Your task to perform on an android device: change text size in settings app Image 0: 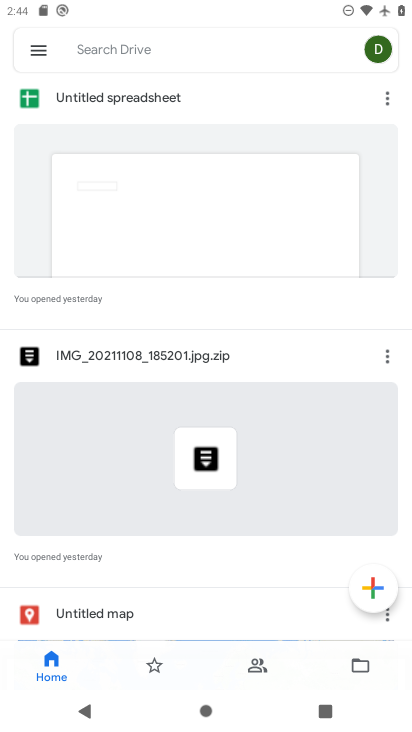
Step 0: press home button
Your task to perform on an android device: change text size in settings app Image 1: 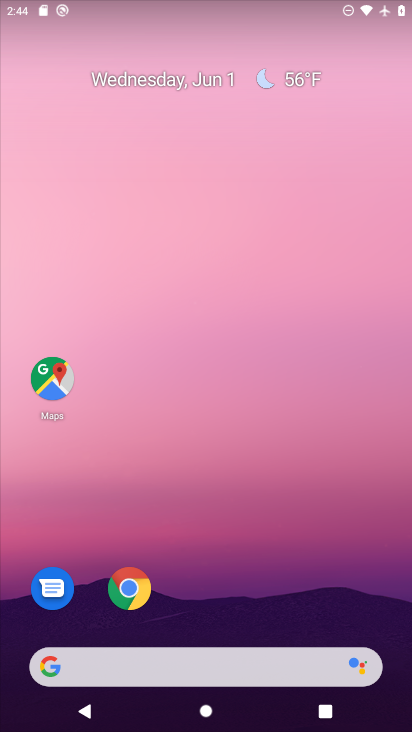
Step 1: drag from (297, 502) to (190, 4)
Your task to perform on an android device: change text size in settings app Image 2: 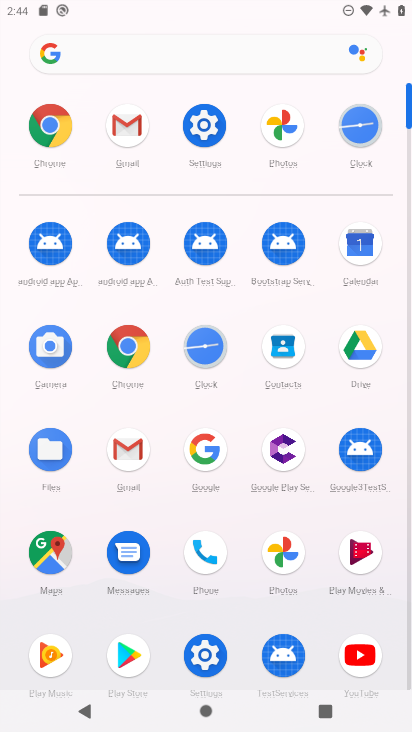
Step 2: click (202, 125)
Your task to perform on an android device: change text size in settings app Image 3: 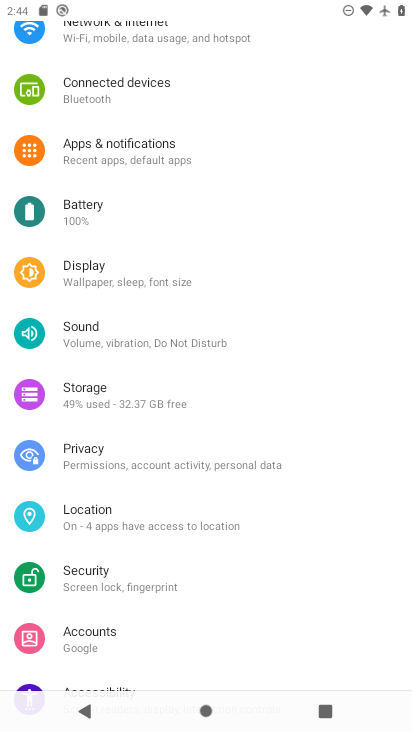
Step 3: click (108, 261)
Your task to perform on an android device: change text size in settings app Image 4: 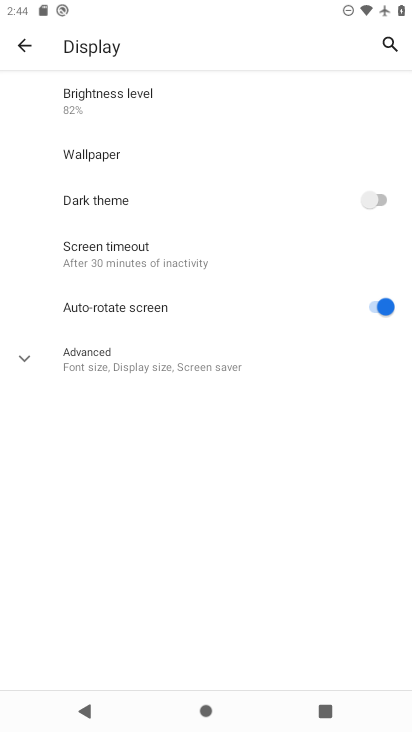
Step 4: click (106, 367)
Your task to perform on an android device: change text size in settings app Image 5: 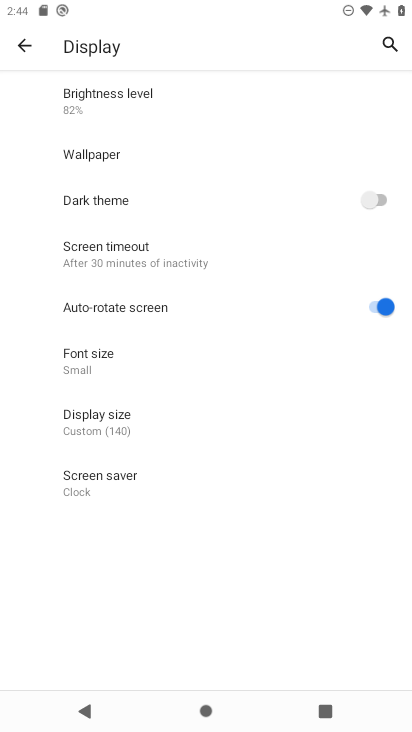
Step 5: click (107, 366)
Your task to perform on an android device: change text size in settings app Image 6: 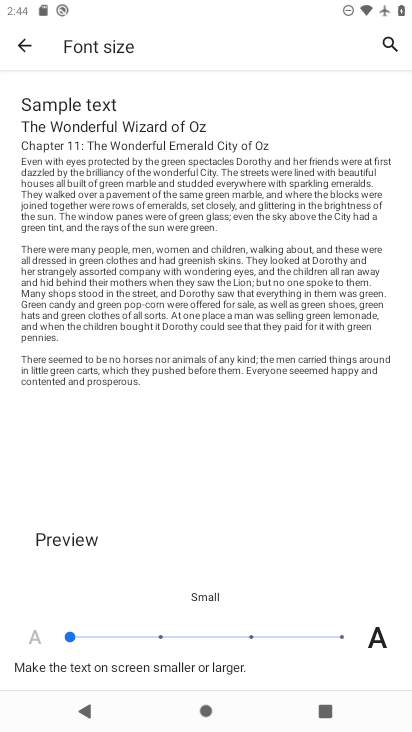
Step 6: click (149, 637)
Your task to perform on an android device: change text size in settings app Image 7: 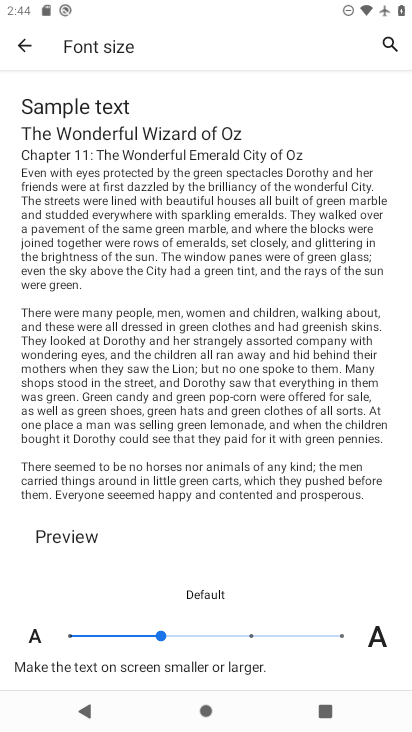
Step 7: click (247, 633)
Your task to perform on an android device: change text size in settings app Image 8: 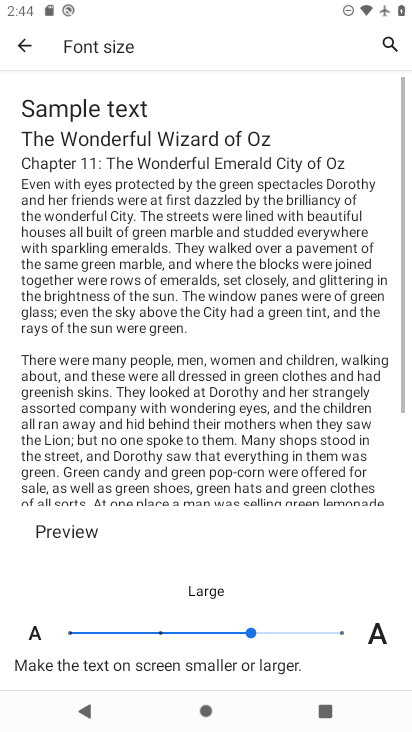
Step 8: task complete